Your task to perform on an android device: Go to CNN.com Image 0: 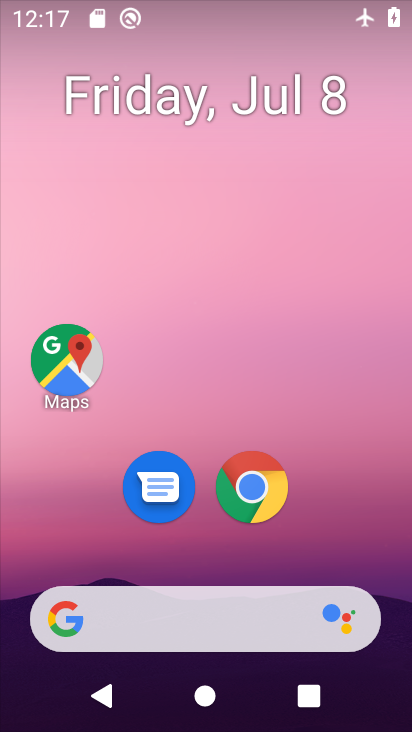
Step 0: drag from (353, 541) to (359, 127)
Your task to perform on an android device: Go to CNN.com Image 1: 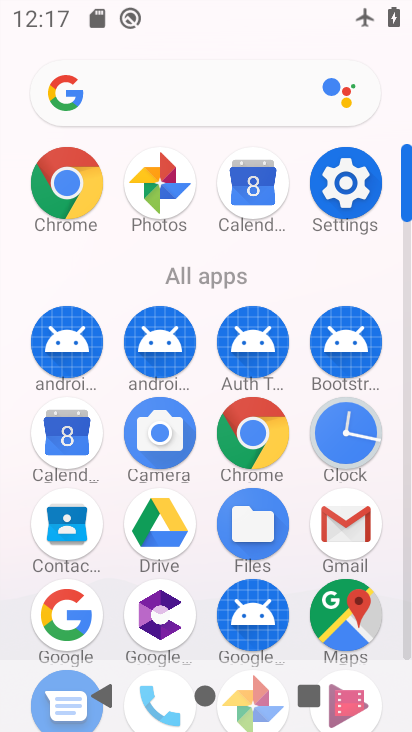
Step 1: click (255, 432)
Your task to perform on an android device: Go to CNN.com Image 2: 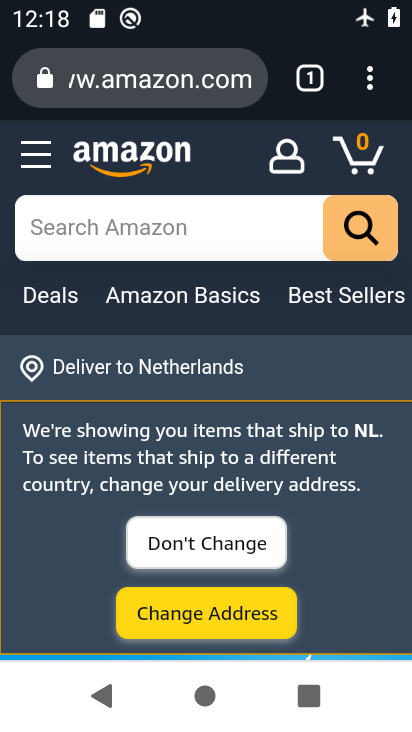
Step 2: click (205, 73)
Your task to perform on an android device: Go to CNN.com Image 3: 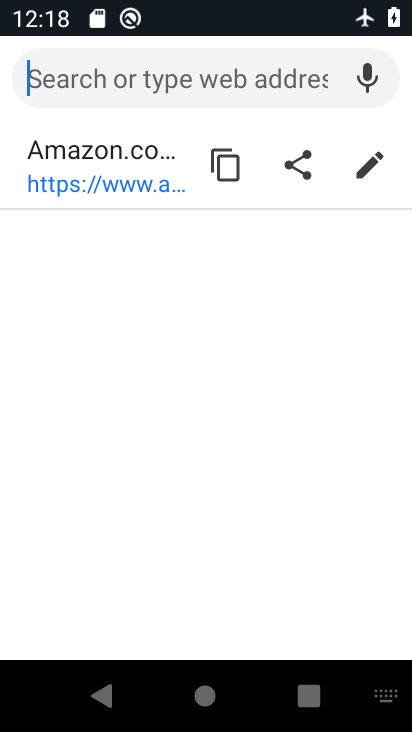
Step 3: type "cnnn.com"
Your task to perform on an android device: Go to CNN.com Image 4: 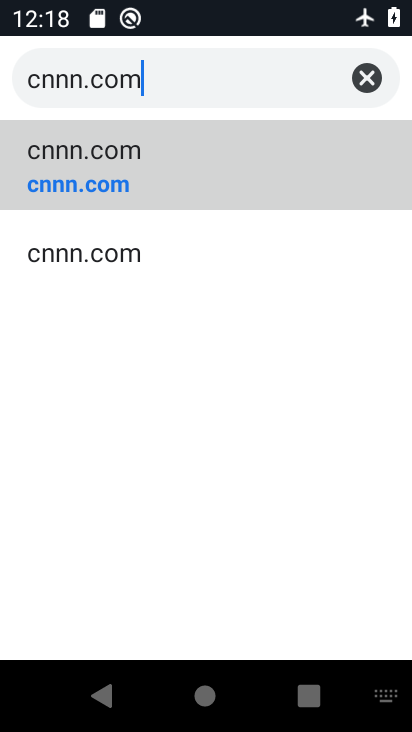
Step 4: click (182, 180)
Your task to perform on an android device: Go to CNN.com Image 5: 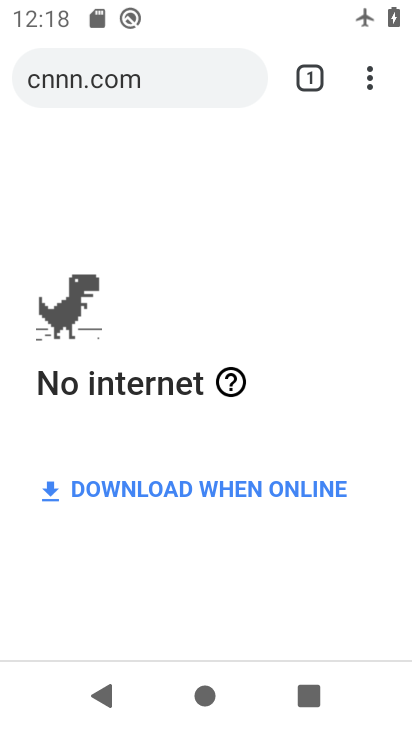
Step 5: task complete